Your task to perform on an android device: turn vacation reply on in the gmail app Image 0: 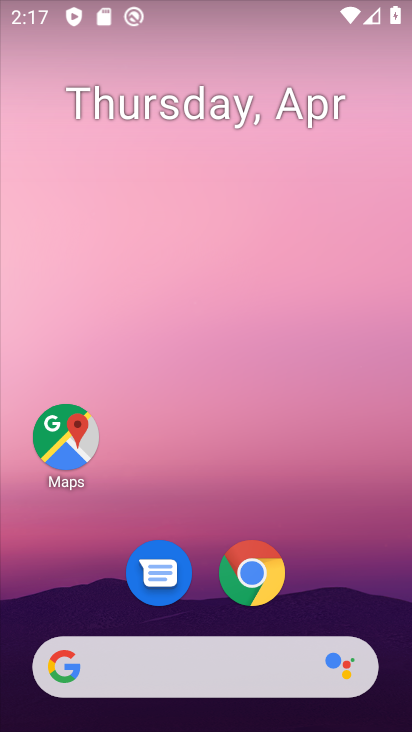
Step 0: drag from (344, 596) to (319, 167)
Your task to perform on an android device: turn vacation reply on in the gmail app Image 1: 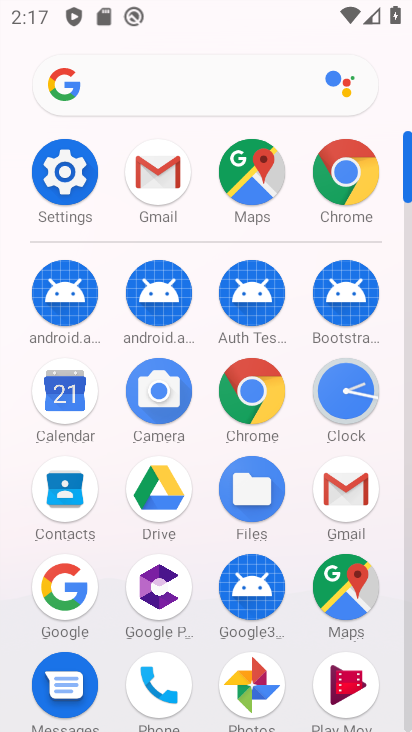
Step 1: click (332, 505)
Your task to perform on an android device: turn vacation reply on in the gmail app Image 2: 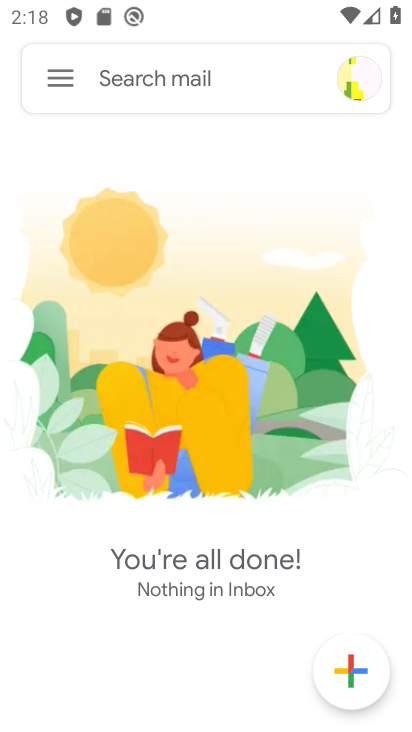
Step 2: click (54, 72)
Your task to perform on an android device: turn vacation reply on in the gmail app Image 3: 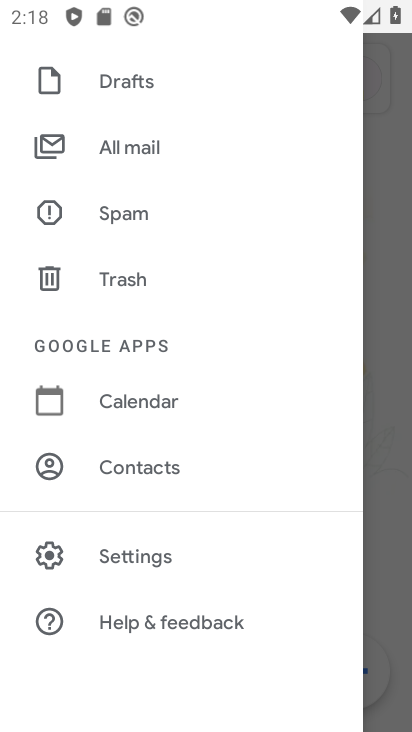
Step 3: click (162, 552)
Your task to perform on an android device: turn vacation reply on in the gmail app Image 4: 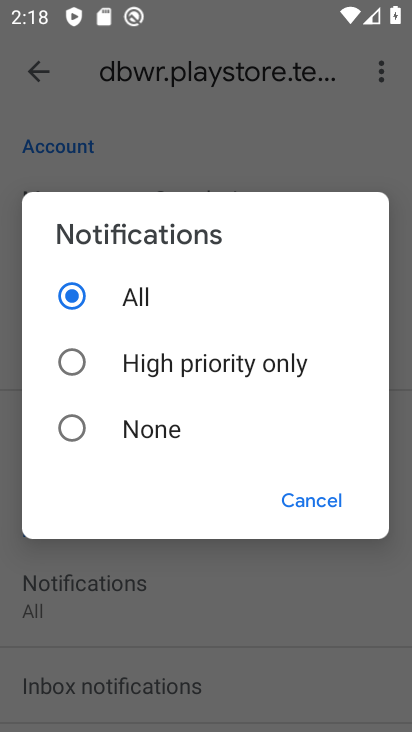
Step 4: click (300, 508)
Your task to perform on an android device: turn vacation reply on in the gmail app Image 5: 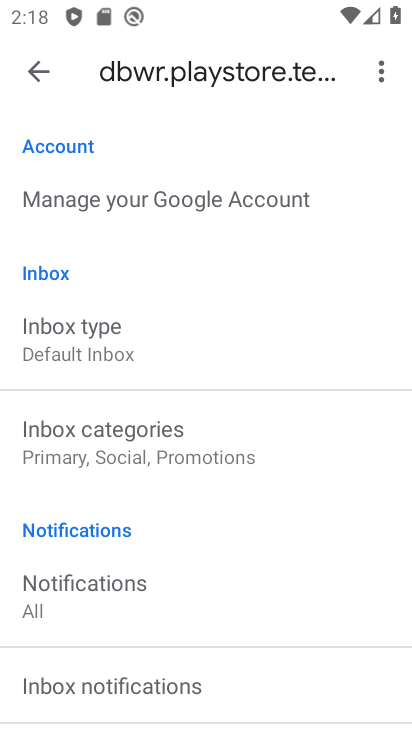
Step 5: drag from (120, 668) to (132, 371)
Your task to perform on an android device: turn vacation reply on in the gmail app Image 6: 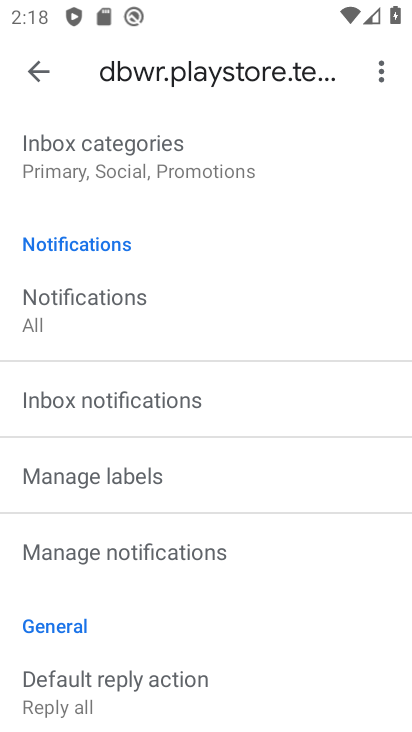
Step 6: drag from (194, 610) to (194, 299)
Your task to perform on an android device: turn vacation reply on in the gmail app Image 7: 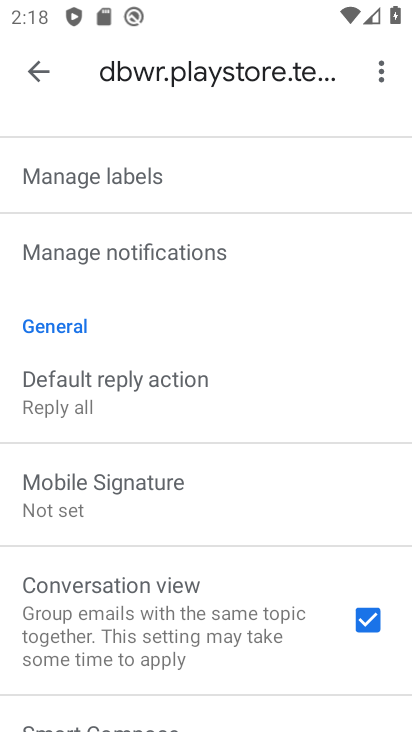
Step 7: drag from (176, 579) to (183, 158)
Your task to perform on an android device: turn vacation reply on in the gmail app Image 8: 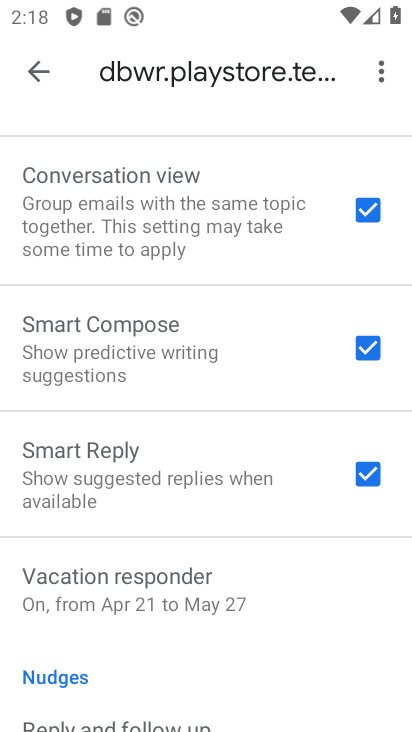
Step 8: click (137, 609)
Your task to perform on an android device: turn vacation reply on in the gmail app Image 9: 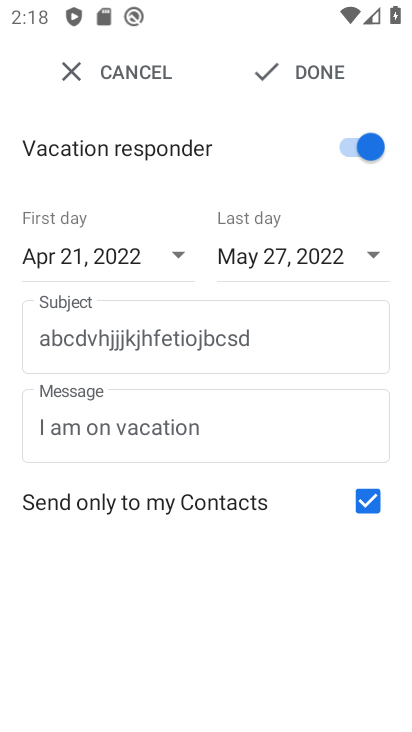
Step 9: task complete